Your task to perform on an android device: check battery use Image 0: 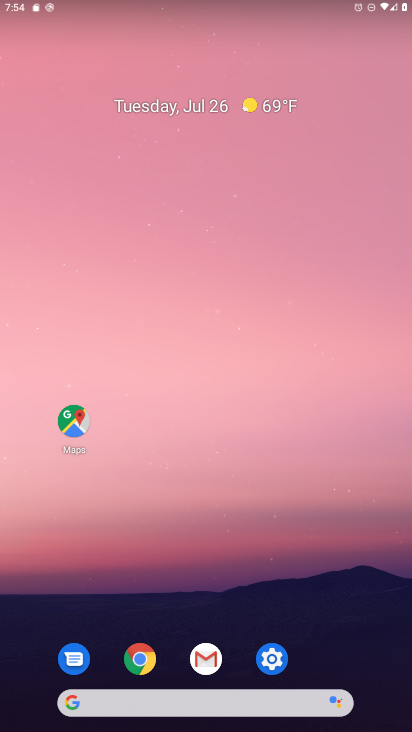
Step 0: click (274, 659)
Your task to perform on an android device: check battery use Image 1: 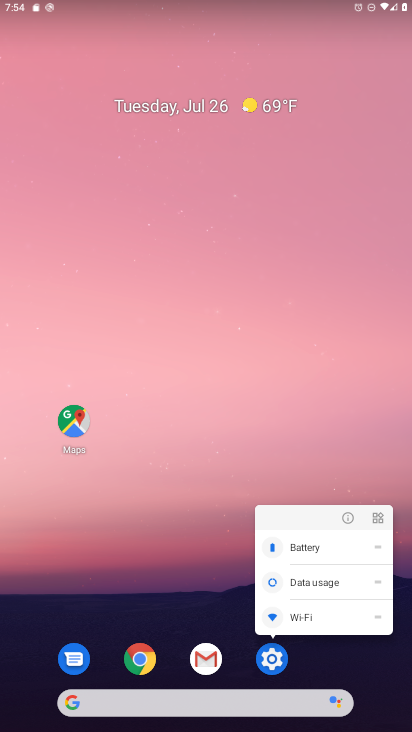
Step 1: click (267, 659)
Your task to perform on an android device: check battery use Image 2: 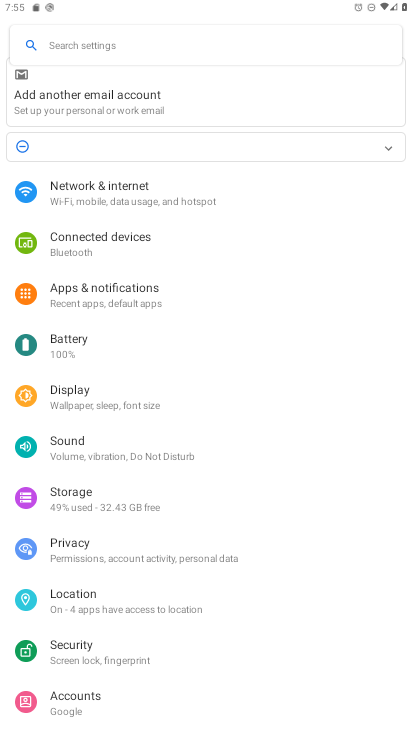
Step 2: click (83, 349)
Your task to perform on an android device: check battery use Image 3: 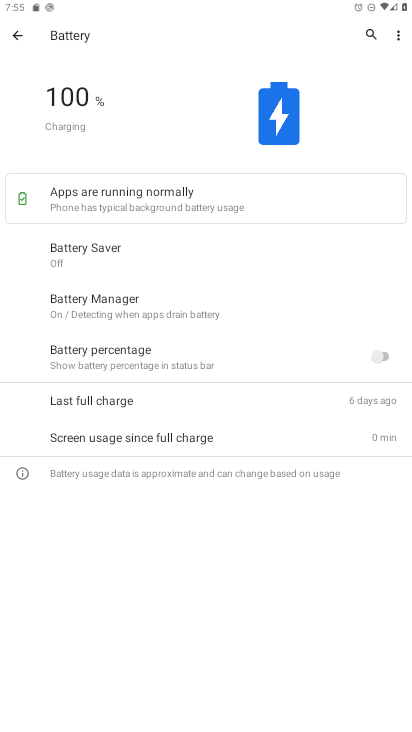
Step 3: task complete